Your task to perform on an android device: Open Google Chrome Image 0: 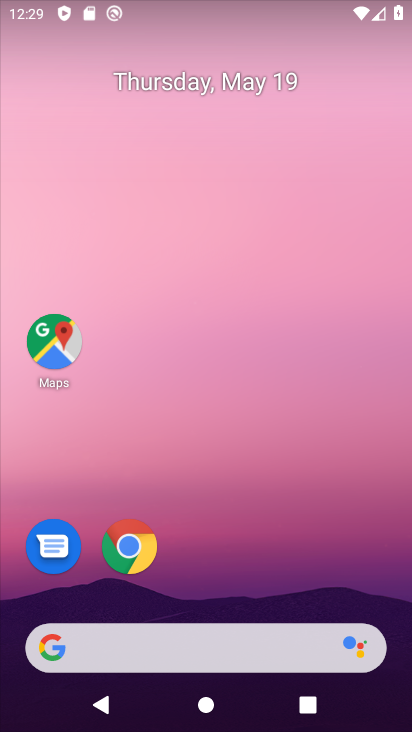
Step 0: click (128, 547)
Your task to perform on an android device: Open Google Chrome Image 1: 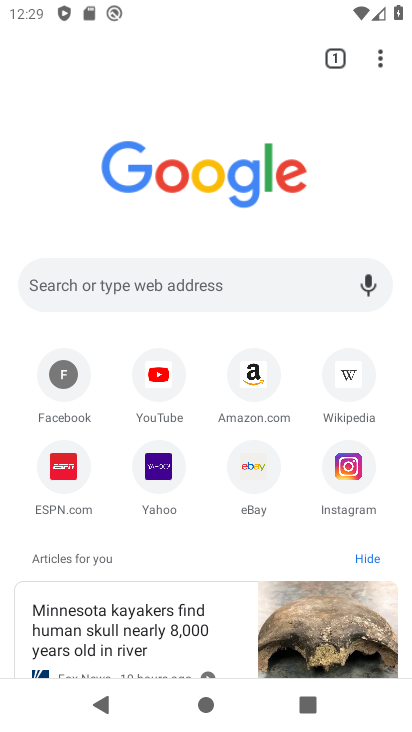
Step 1: task complete